Your task to perform on an android device: Show me popular games on the Play Store Image 0: 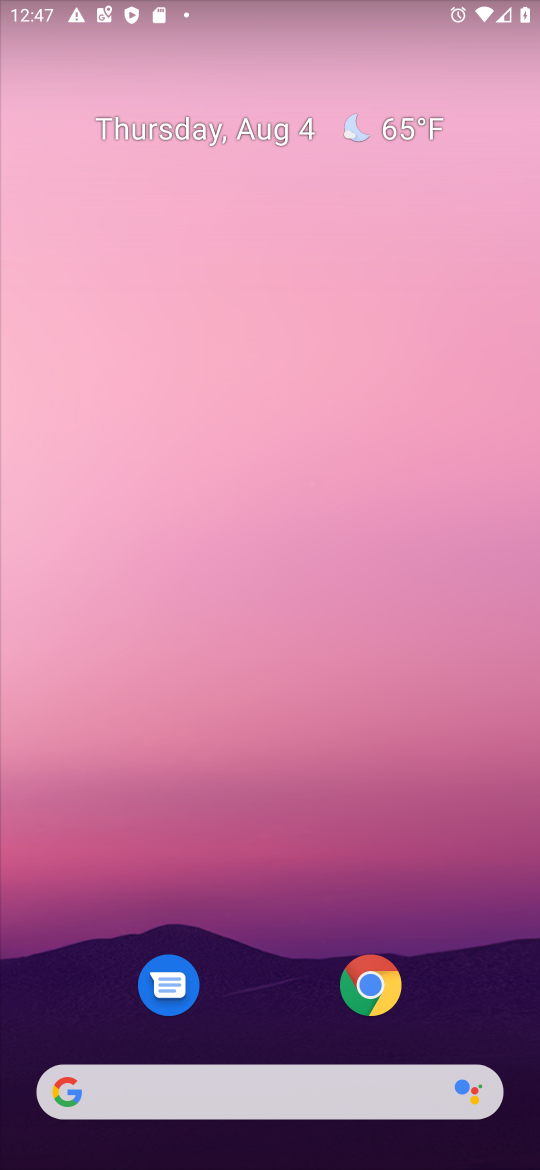
Step 0: drag from (257, 695) to (216, 91)
Your task to perform on an android device: Show me popular games on the Play Store Image 1: 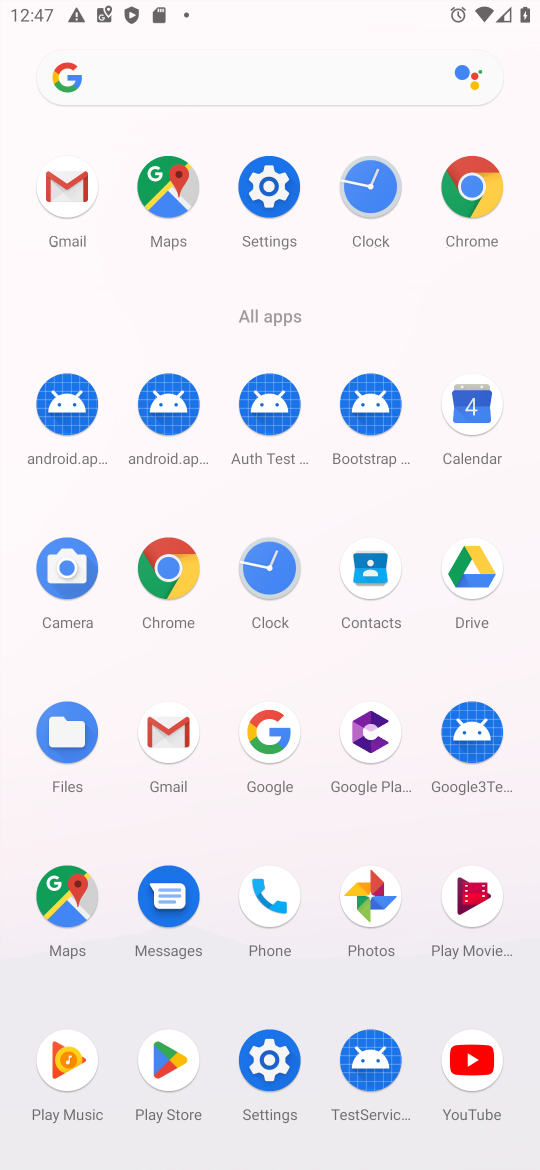
Step 1: click (169, 1045)
Your task to perform on an android device: Show me popular games on the Play Store Image 2: 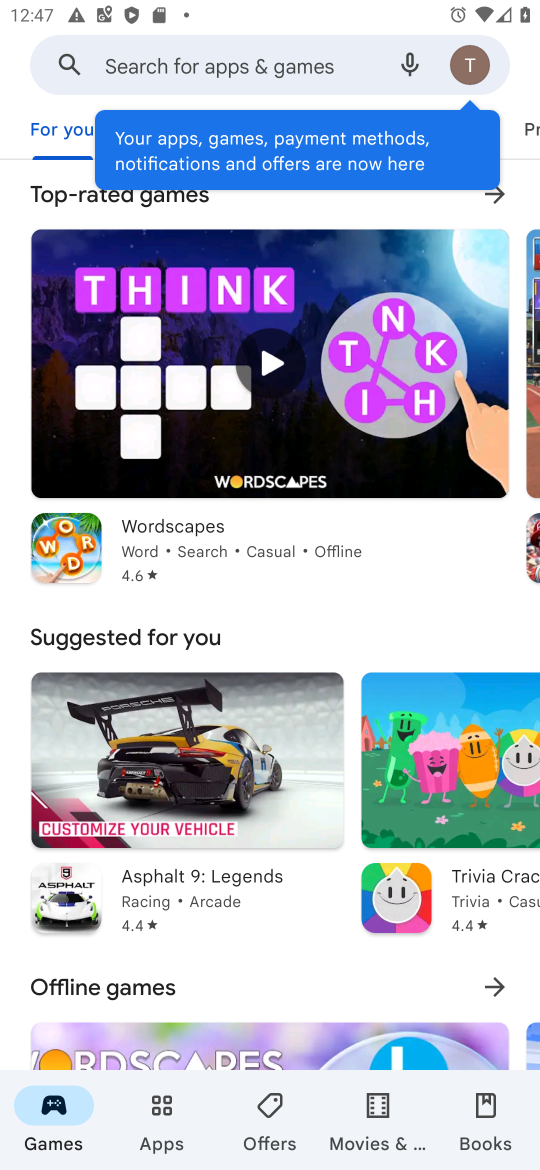
Step 2: task complete